Your task to perform on an android device: Play the latest video from the Huffington Post Image 0: 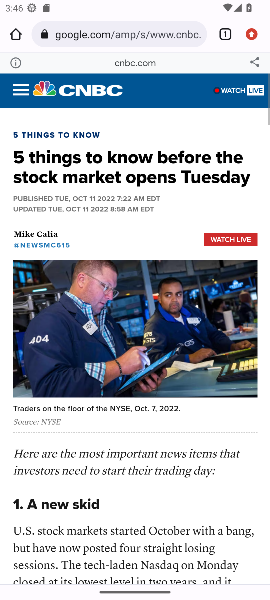
Step 0: press home button
Your task to perform on an android device: Play the latest video from the Huffington Post Image 1: 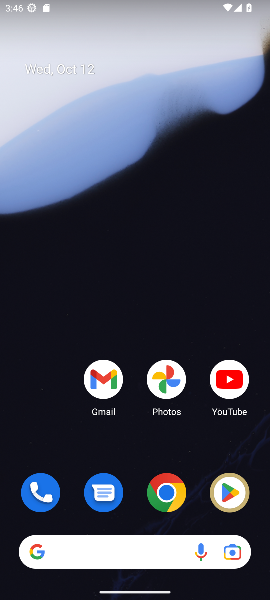
Step 1: click (167, 497)
Your task to perform on an android device: Play the latest video from the Huffington Post Image 2: 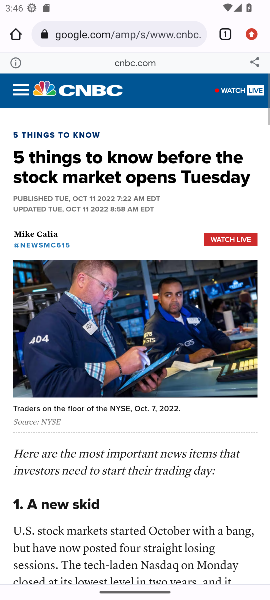
Step 2: click (124, 37)
Your task to perform on an android device: Play the latest video from the Huffington Post Image 3: 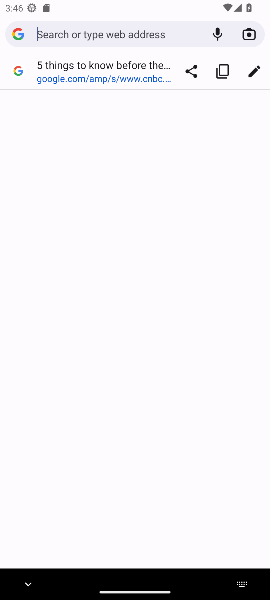
Step 3: type "latest video from the Huffington Post"
Your task to perform on an android device: Play the latest video from the Huffington Post Image 4: 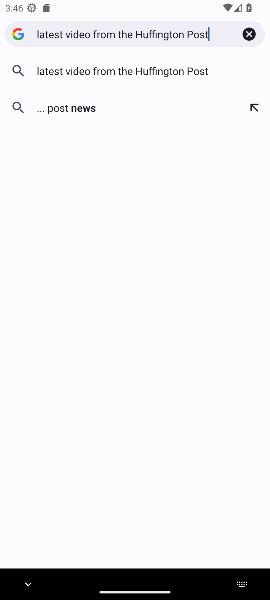
Step 4: click (86, 68)
Your task to perform on an android device: Play the latest video from the Huffington Post Image 5: 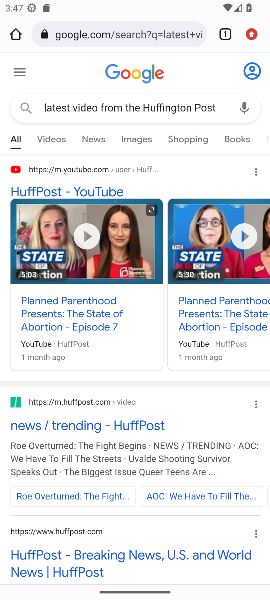
Step 5: click (88, 243)
Your task to perform on an android device: Play the latest video from the Huffington Post Image 6: 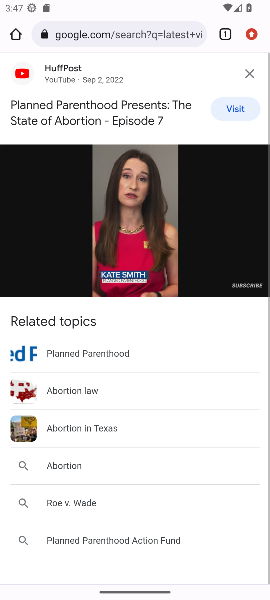
Step 6: click (109, 239)
Your task to perform on an android device: Play the latest video from the Huffington Post Image 7: 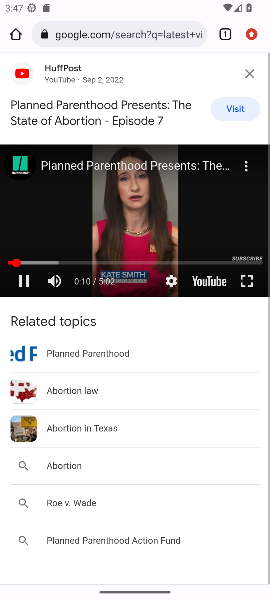
Step 7: click (26, 282)
Your task to perform on an android device: Play the latest video from the Huffington Post Image 8: 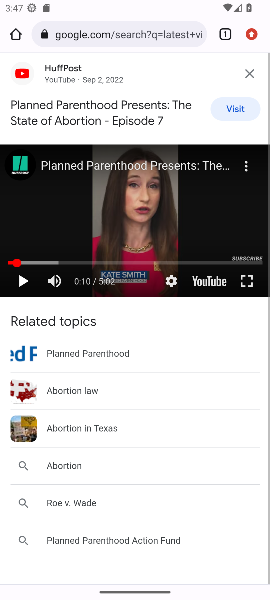
Step 8: task complete